Your task to perform on an android device: turn on wifi Image 0: 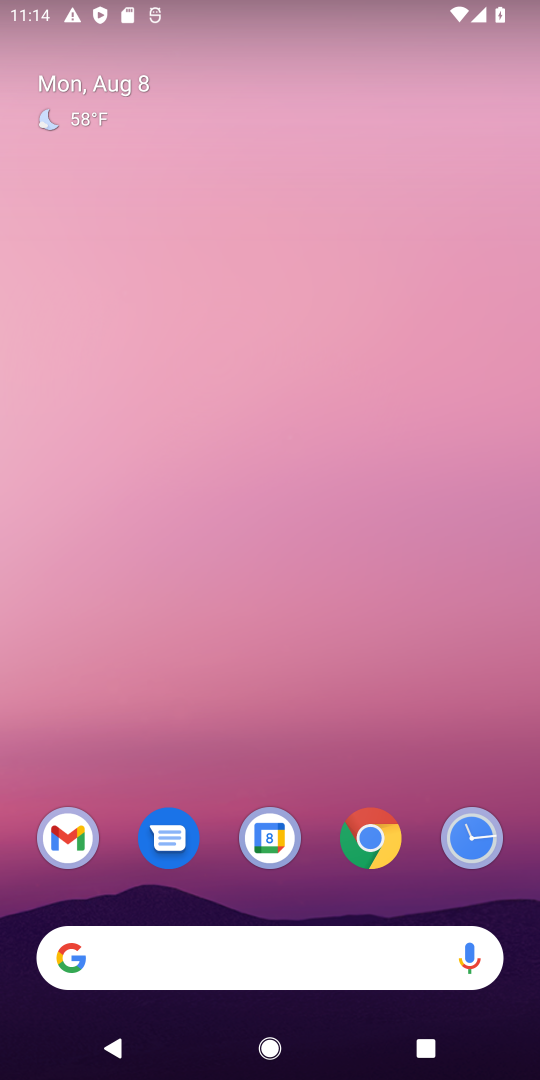
Step 0: press home button
Your task to perform on an android device: turn on wifi Image 1: 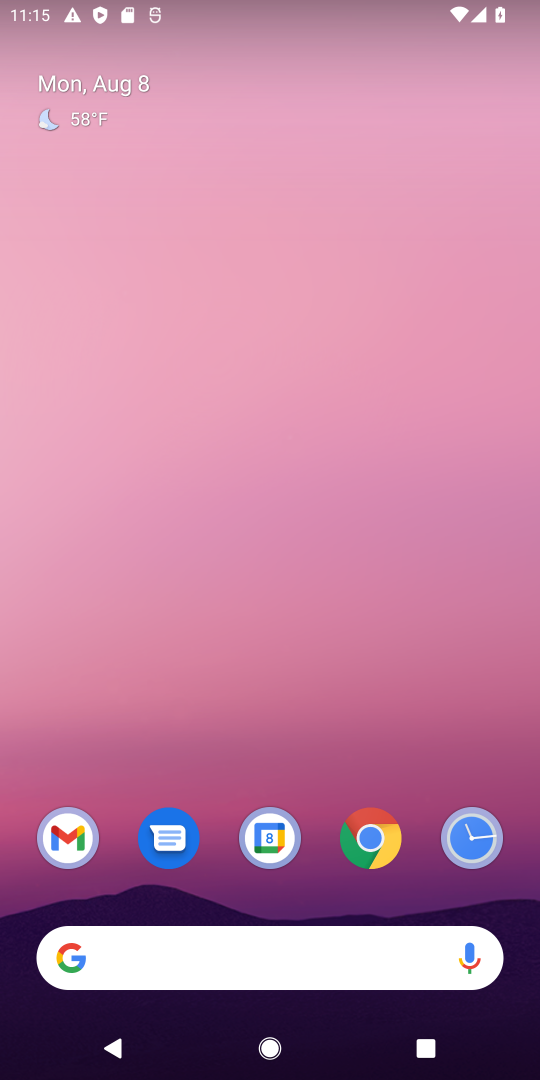
Step 1: drag from (332, 878) to (352, 112)
Your task to perform on an android device: turn on wifi Image 2: 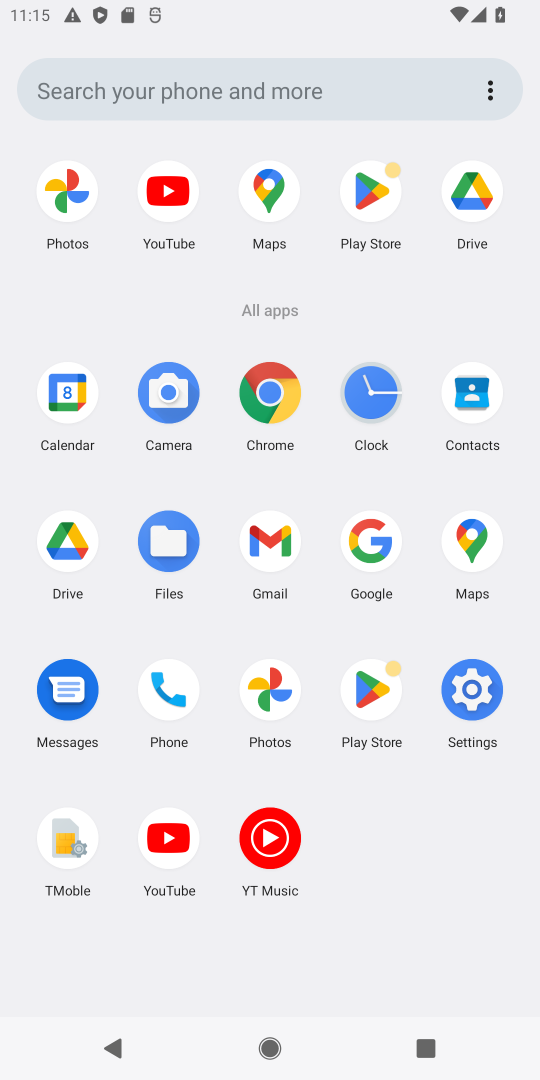
Step 2: click (468, 690)
Your task to perform on an android device: turn on wifi Image 3: 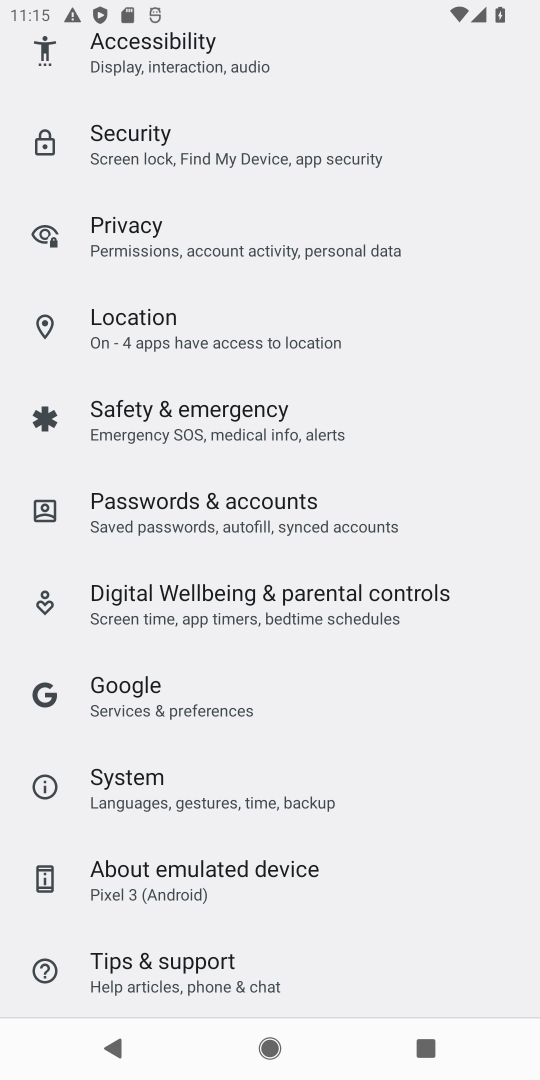
Step 3: drag from (341, 118) to (416, 807)
Your task to perform on an android device: turn on wifi Image 4: 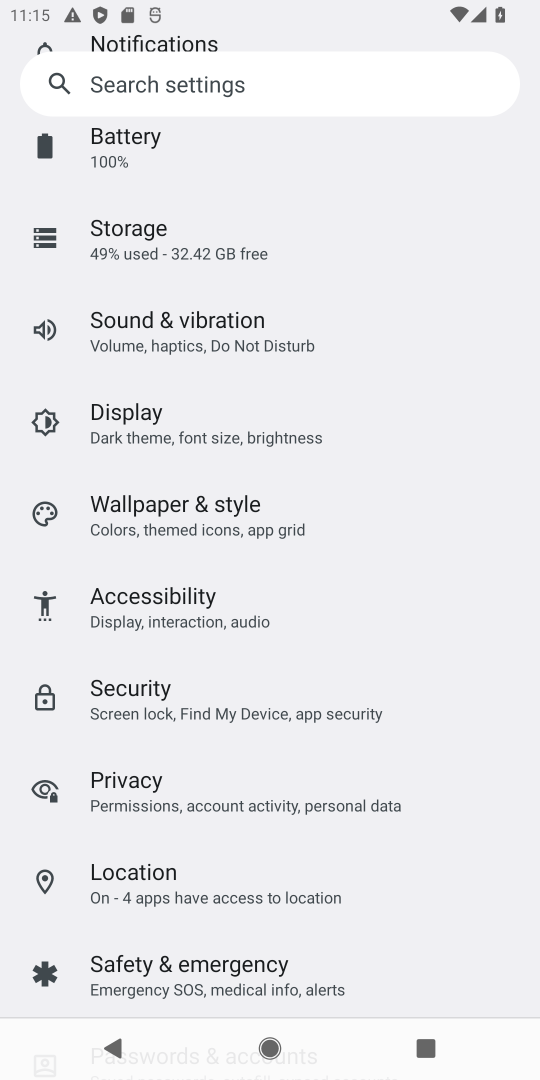
Step 4: drag from (291, 361) to (317, 891)
Your task to perform on an android device: turn on wifi Image 5: 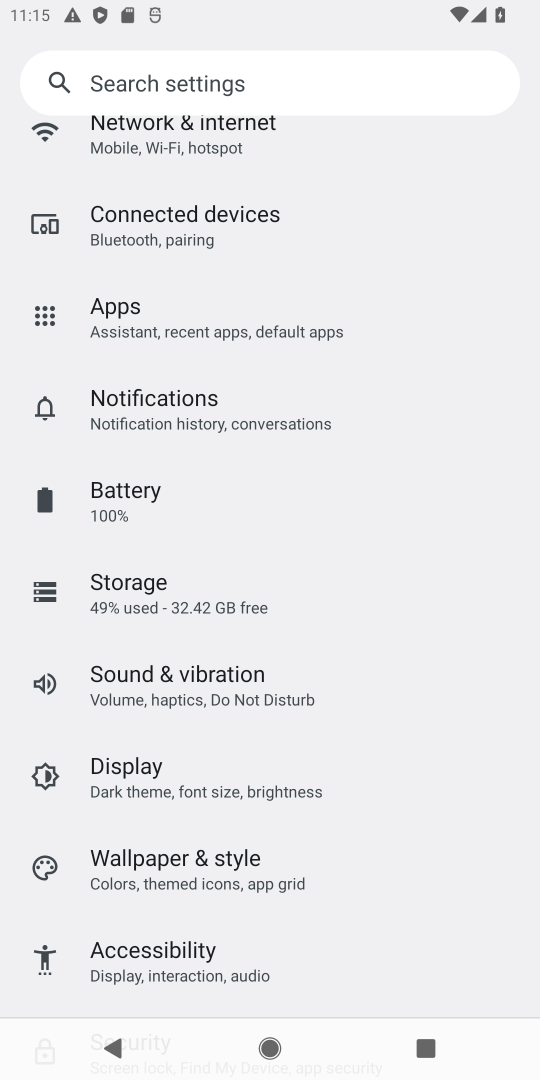
Step 5: drag from (364, 166) to (370, 778)
Your task to perform on an android device: turn on wifi Image 6: 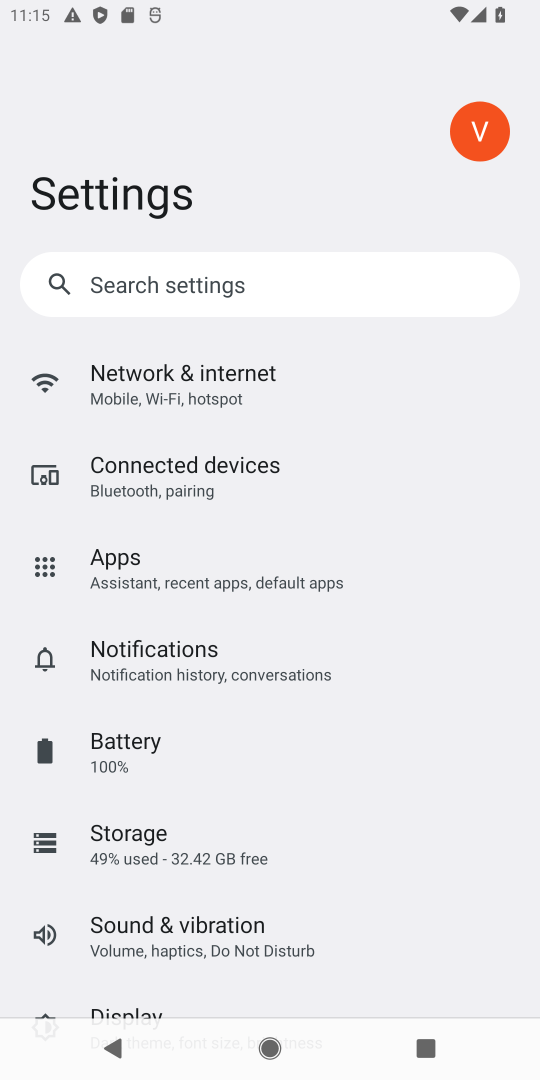
Step 6: click (159, 380)
Your task to perform on an android device: turn on wifi Image 7: 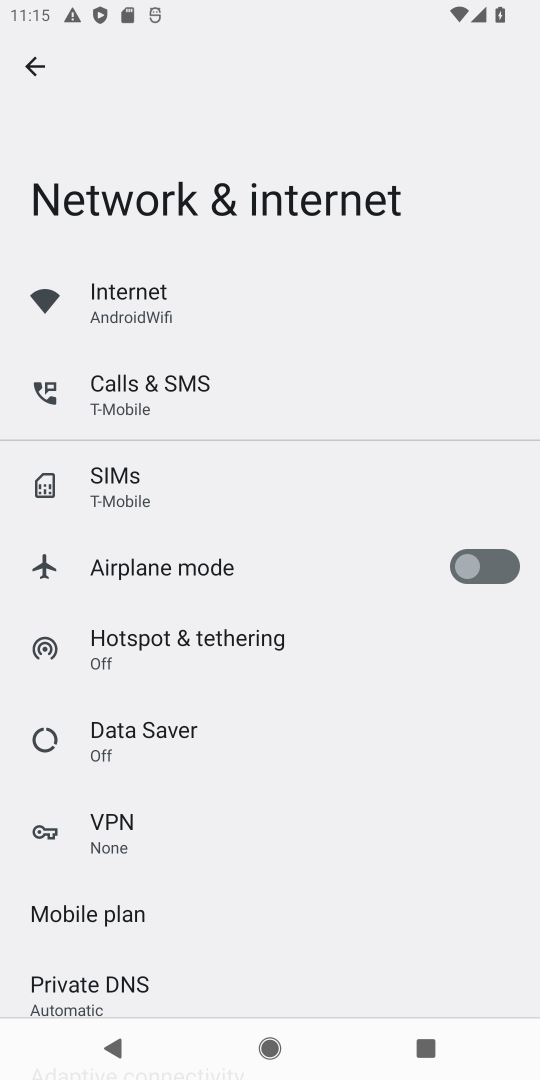
Step 7: click (153, 304)
Your task to perform on an android device: turn on wifi Image 8: 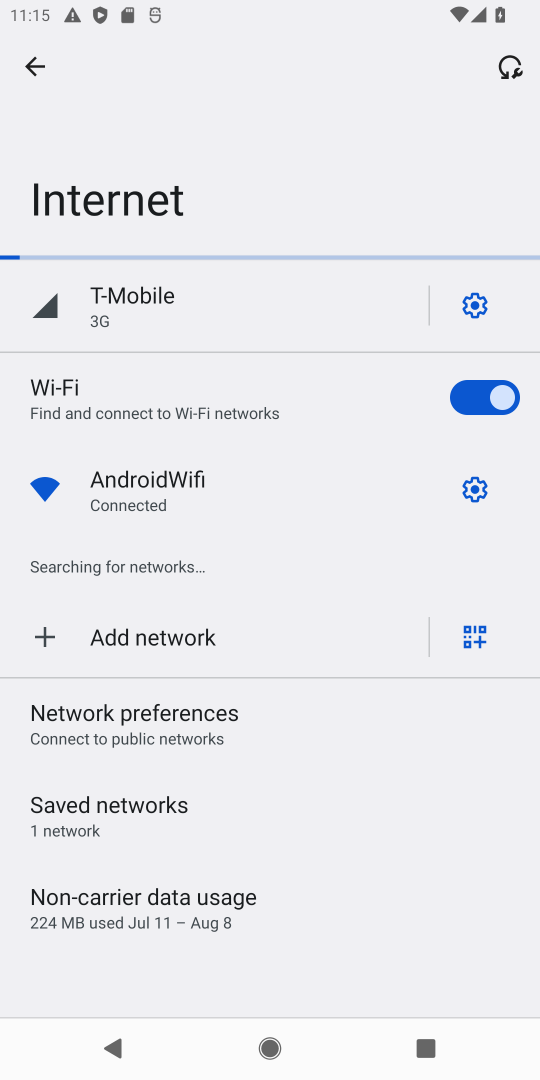
Step 8: task complete